Your task to perform on an android device: Go to Android settings Image 0: 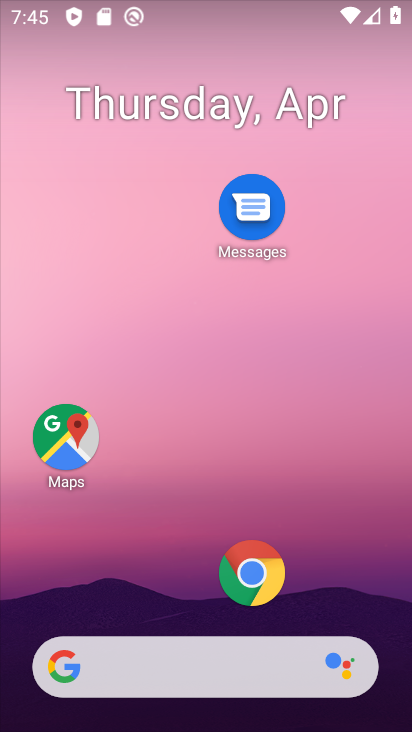
Step 0: press home button
Your task to perform on an android device: Go to Android settings Image 1: 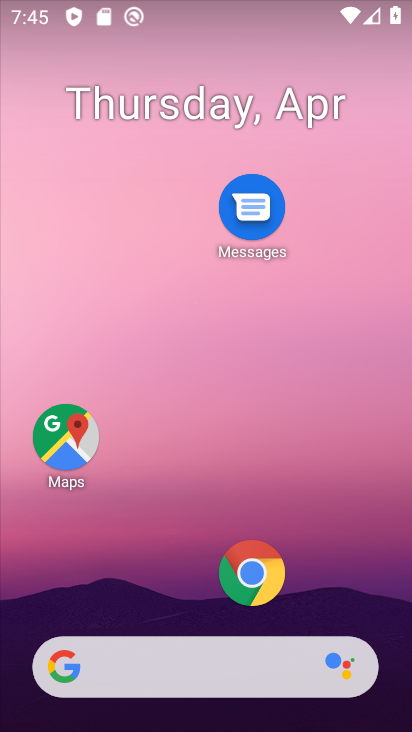
Step 1: drag from (191, 609) to (183, 177)
Your task to perform on an android device: Go to Android settings Image 2: 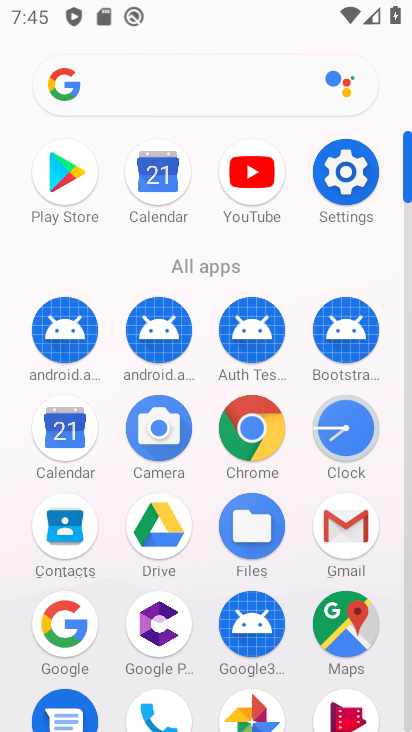
Step 2: click (353, 173)
Your task to perform on an android device: Go to Android settings Image 3: 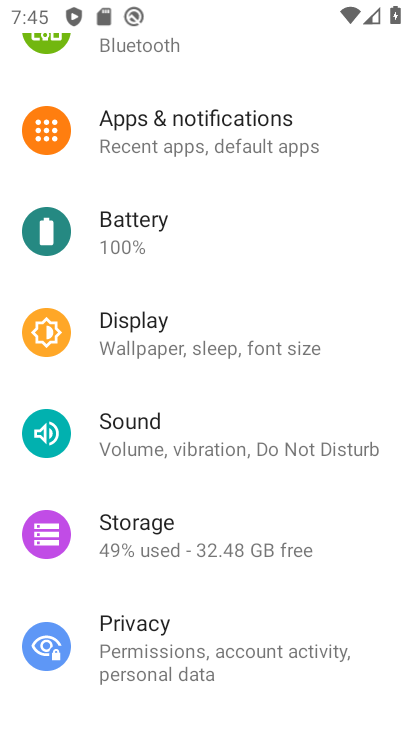
Step 3: drag from (208, 583) to (225, 116)
Your task to perform on an android device: Go to Android settings Image 4: 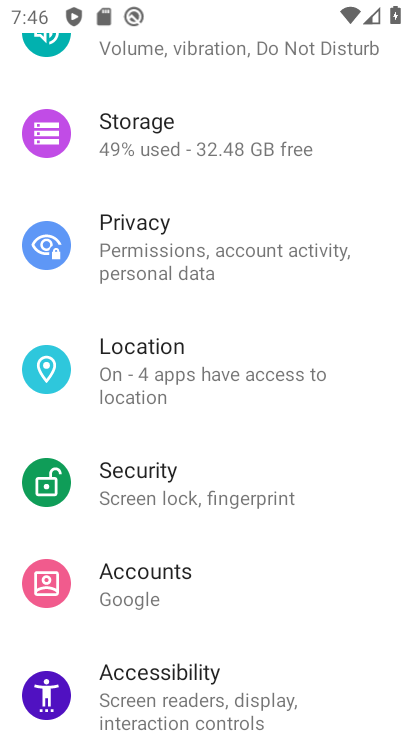
Step 4: drag from (198, 618) to (234, 198)
Your task to perform on an android device: Go to Android settings Image 5: 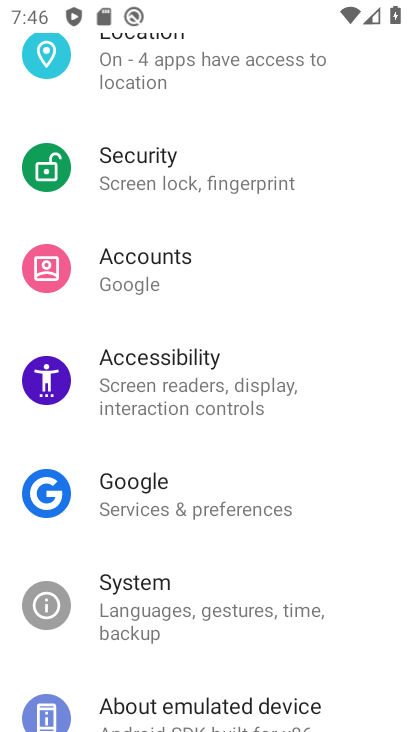
Step 5: drag from (176, 669) to (234, 234)
Your task to perform on an android device: Go to Android settings Image 6: 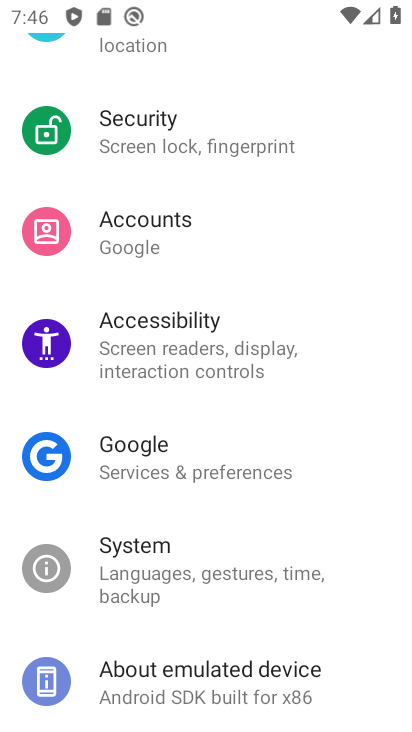
Step 6: click (184, 668)
Your task to perform on an android device: Go to Android settings Image 7: 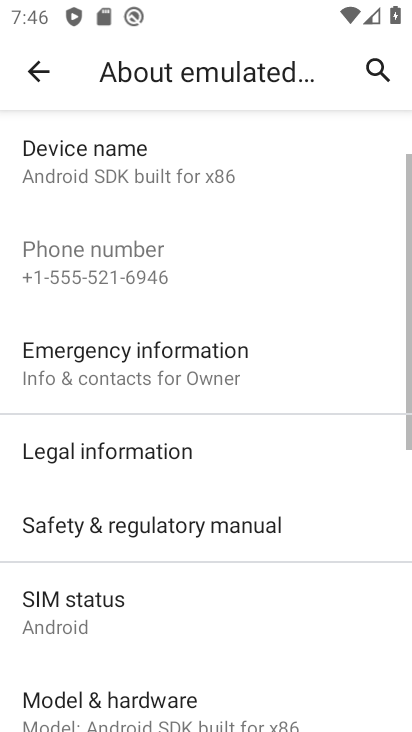
Step 7: drag from (207, 629) to (227, 245)
Your task to perform on an android device: Go to Android settings Image 8: 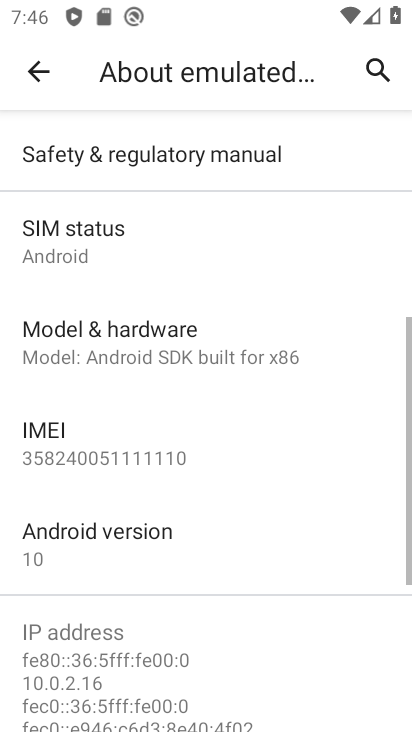
Step 8: click (116, 558)
Your task to perform on an android device: Go to Android settings Image 9: 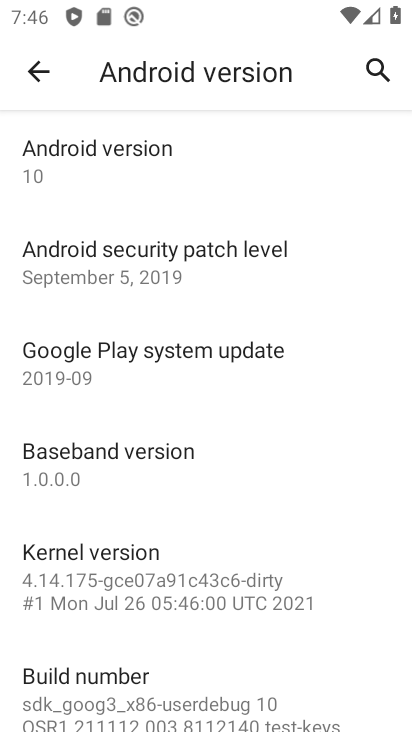
Step 9: task complete